Your task to perform on an android device: check google app version Image 0: 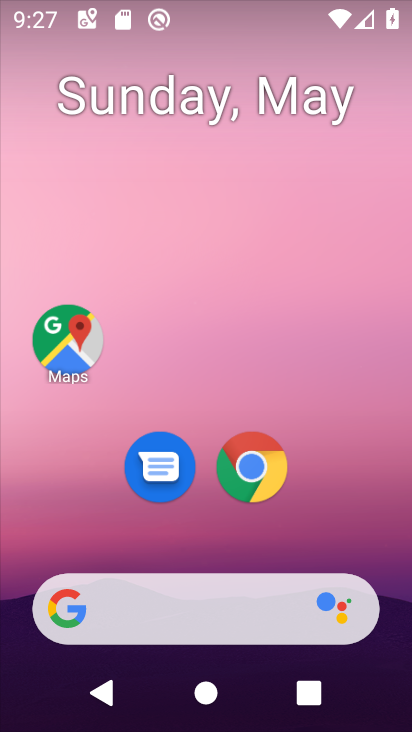
Step 0: drag from (312, 539) to (318, 177)
Your task to perform on an android device: check google app version Image 1: 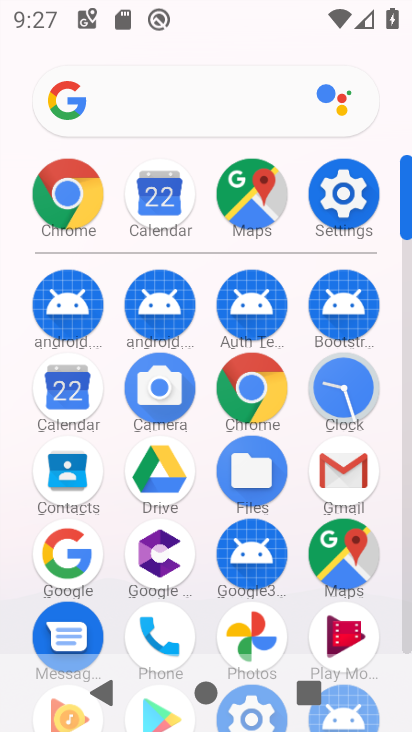
Step 1: click (69, 568)
Your task to perform on an android device: check google app version Image 2: 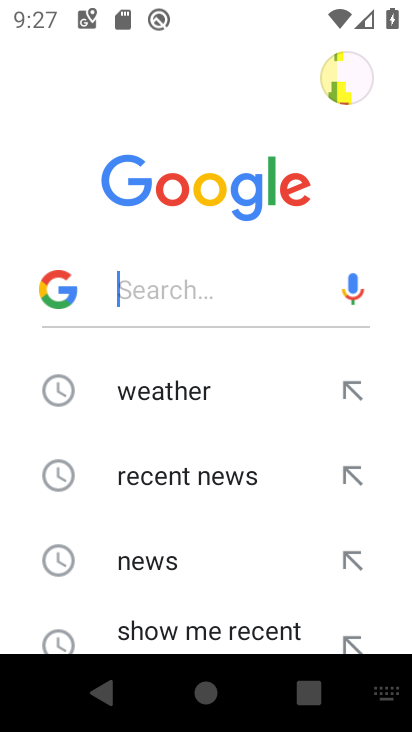
Step 2: drag from (289, 572) to (284, 276)
Your task to perform on an android device: check google app version Image 3: 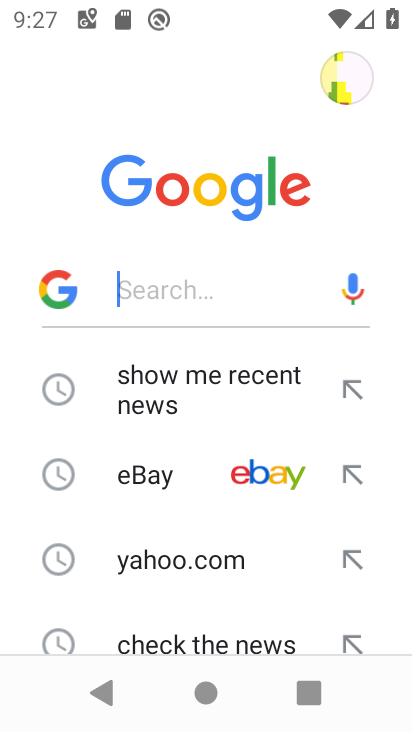
Step 3: press back button
Your task to perform on an android device: check google app version Image 4: 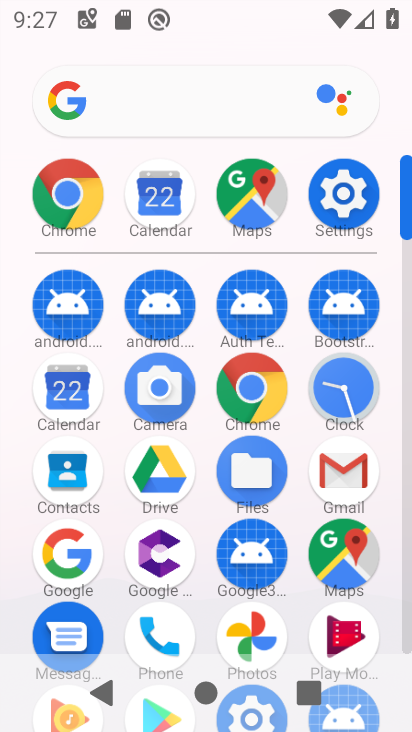
Step 4: click (51, 566)
Your task to perform on an android device: check google app version Image 5: 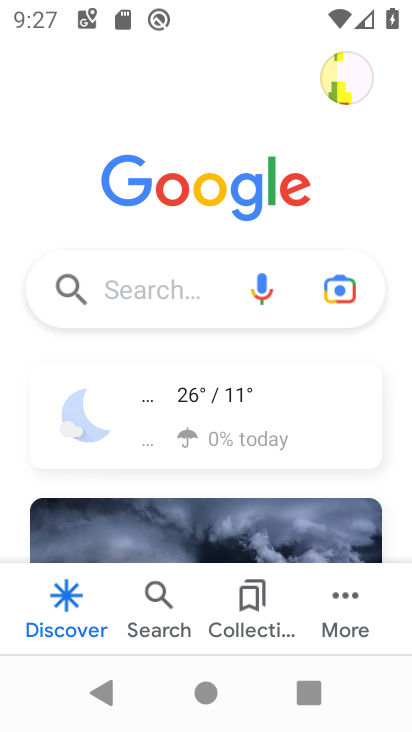
Step 5: click (337, 616)
Your task to perform on an android device: check google app version Image 6: 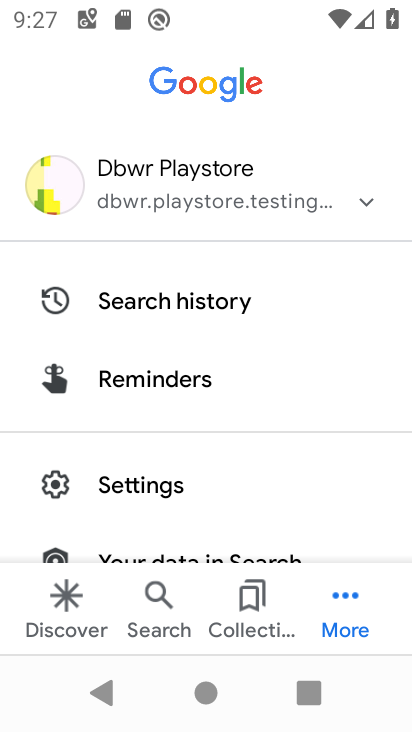
Step 6: click (198, 466)
Your task to perform on an android device: check google app version Image 7: 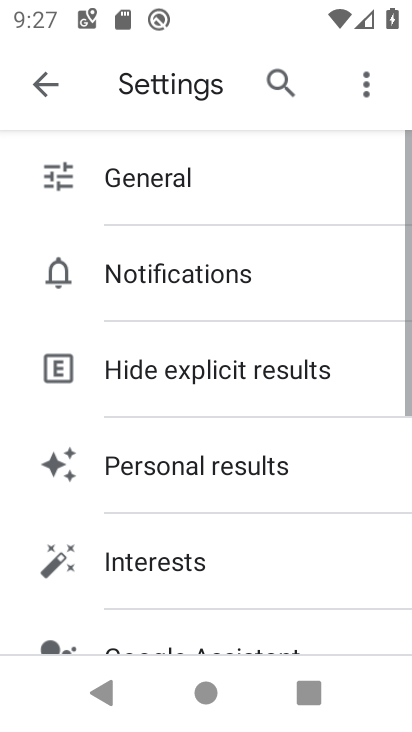
Step 7: drag from (244, 580) to (238, 173)
Your task to perform on an android device: check google app version Image 8: 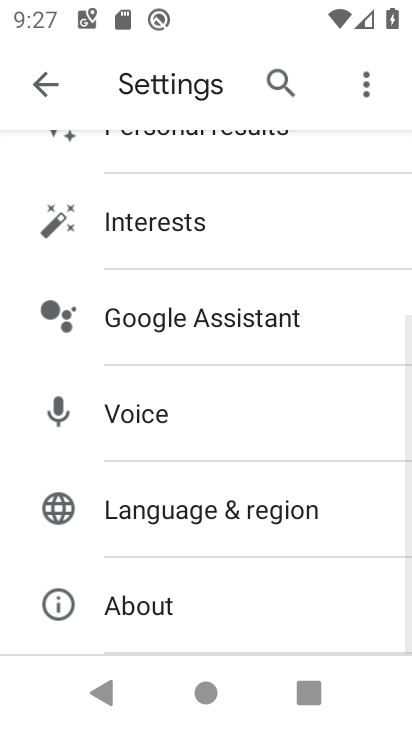
Step 8: click (155, 603)
Your task to perform on an android device: check google app version Image 9: 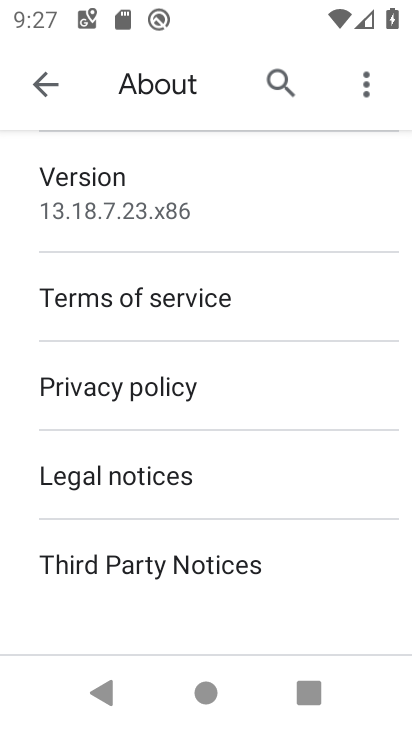
Step 9: task complete